Your task to perform on an android device: Go to ESPN.com Image 0: 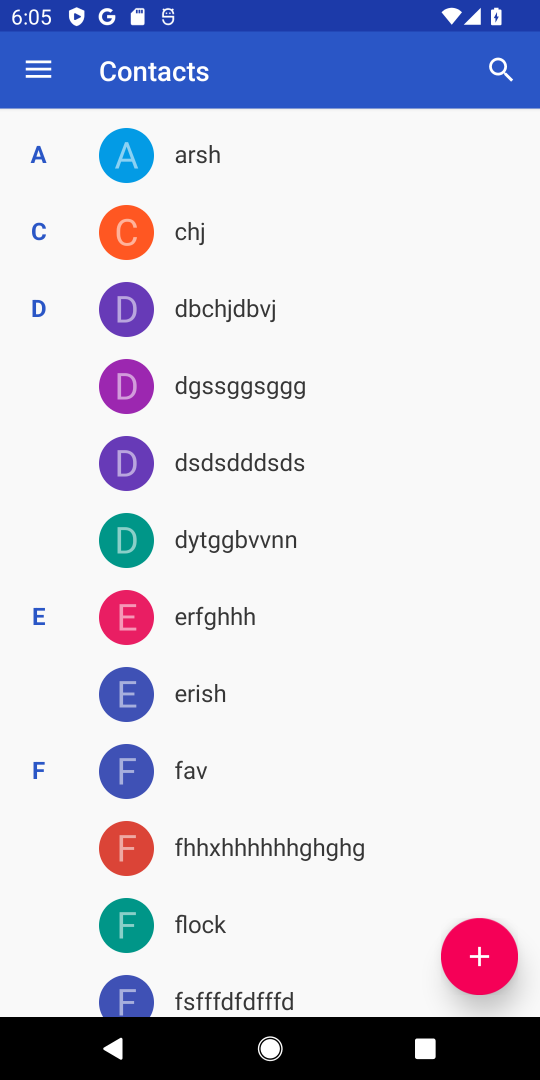
Step 0: press home button
Your task to perform on an android device: Go to ESPN.com Image 1: 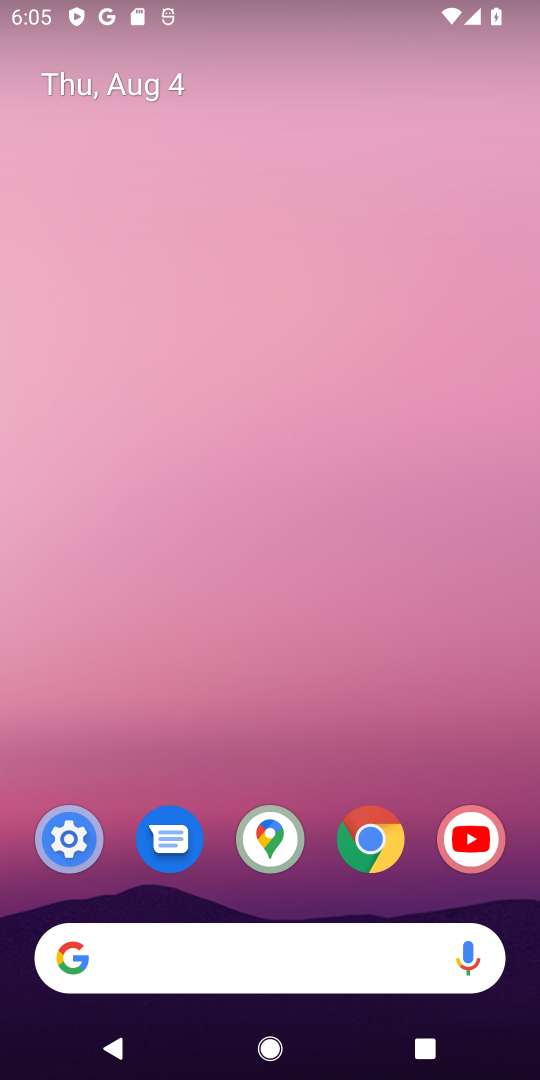
Step 1: drag from (330, 754) to (506, 124)
Your task to perform on an android device: Go to ESPN.com Image 2: 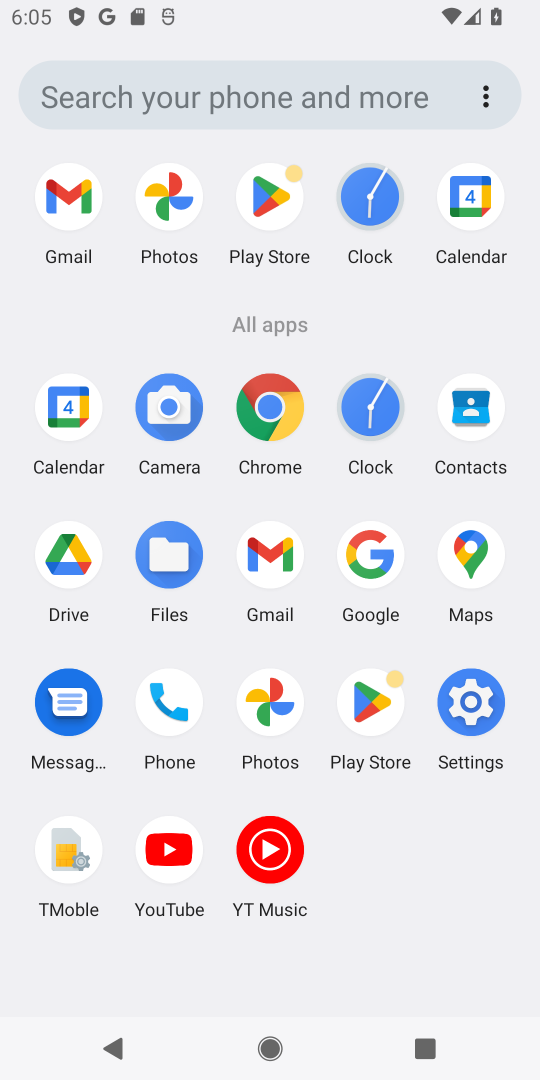
Step 2: click (277, 402)
Your task to perform on an android device: Go to ESPN.com Image 3: 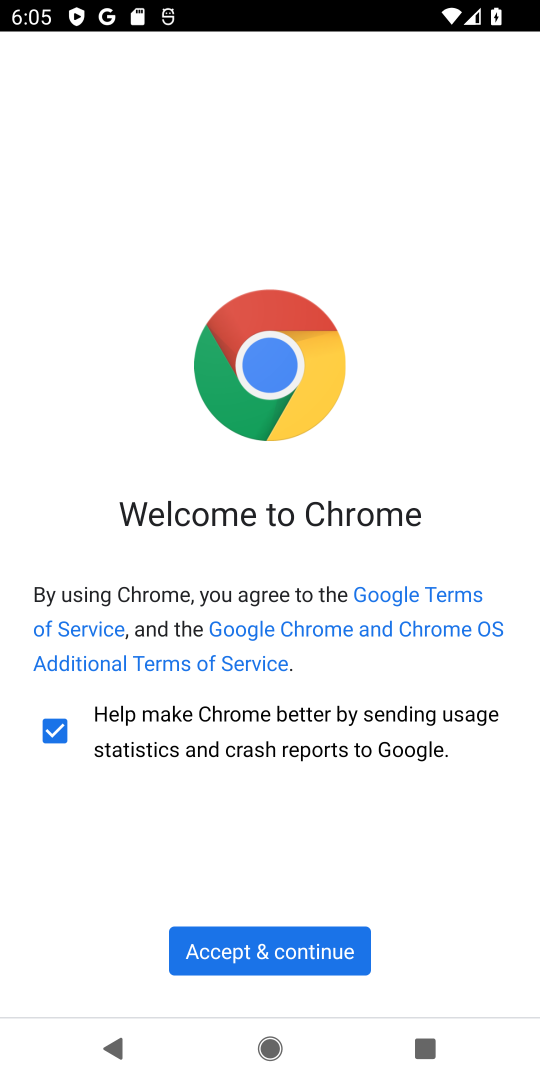
Step 3: click (273, 963)
Your task to perform on an android device: Go to ESPN.com Image 4: 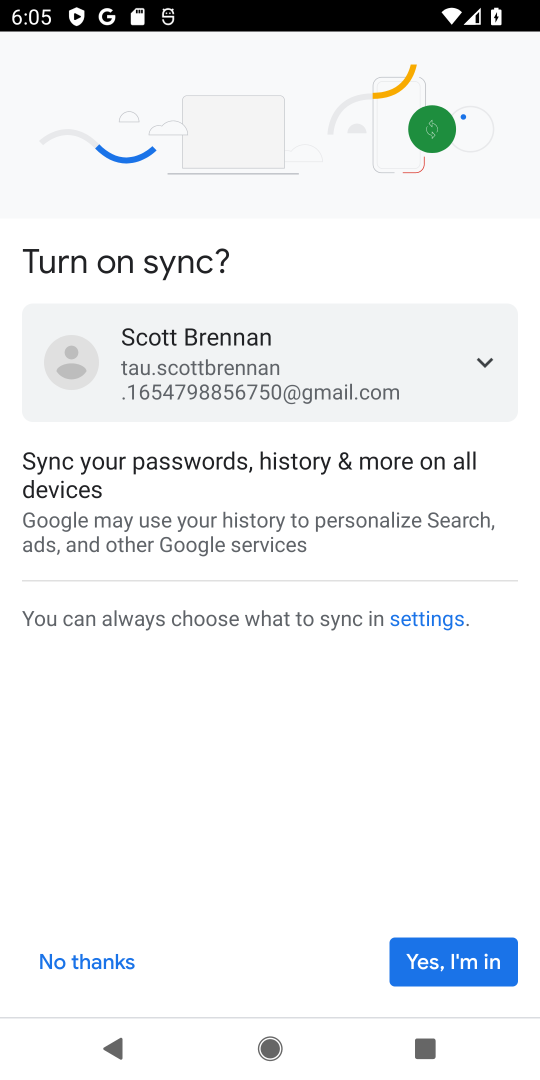
Step 4: click (432, 975)
Your task to perform on an android device: Go to ESPN.com Image 5: 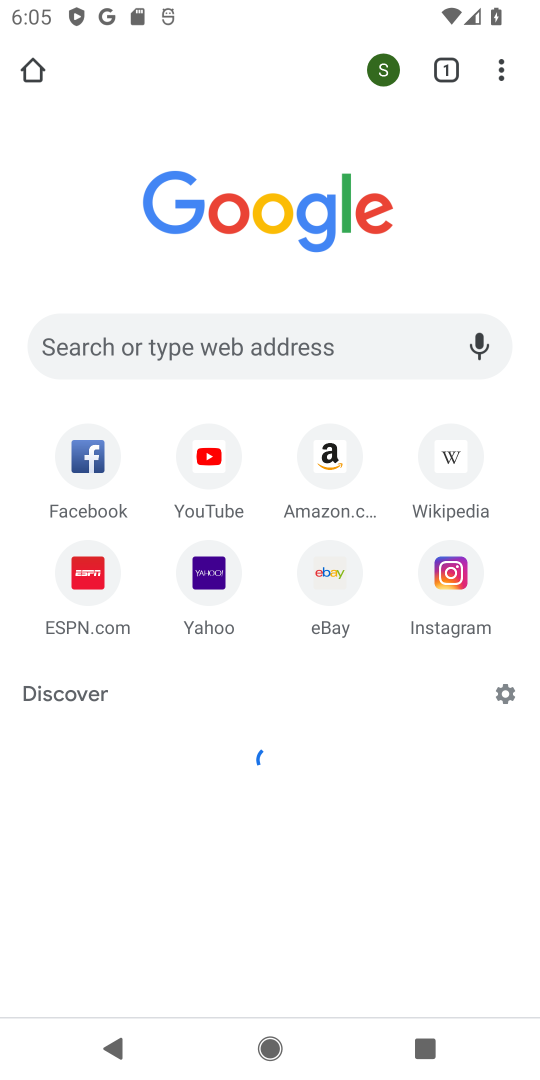
Step 5: click (99, 577)
Your task to perform on an android device: Go to ESPN.com Image 6: 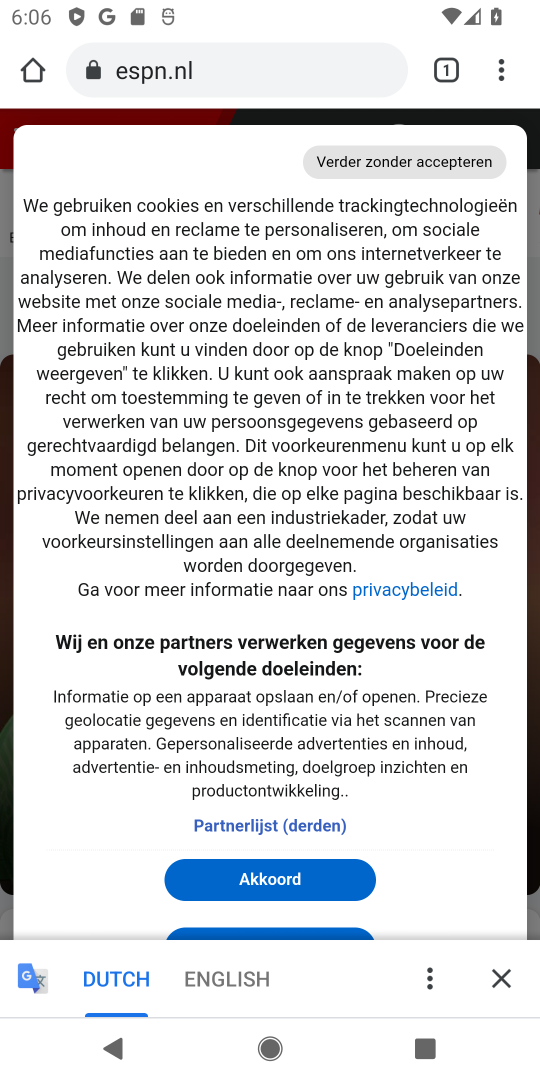
Step 6: task complete